Your task to perform on an android device: Go to privacy settings Image 0: 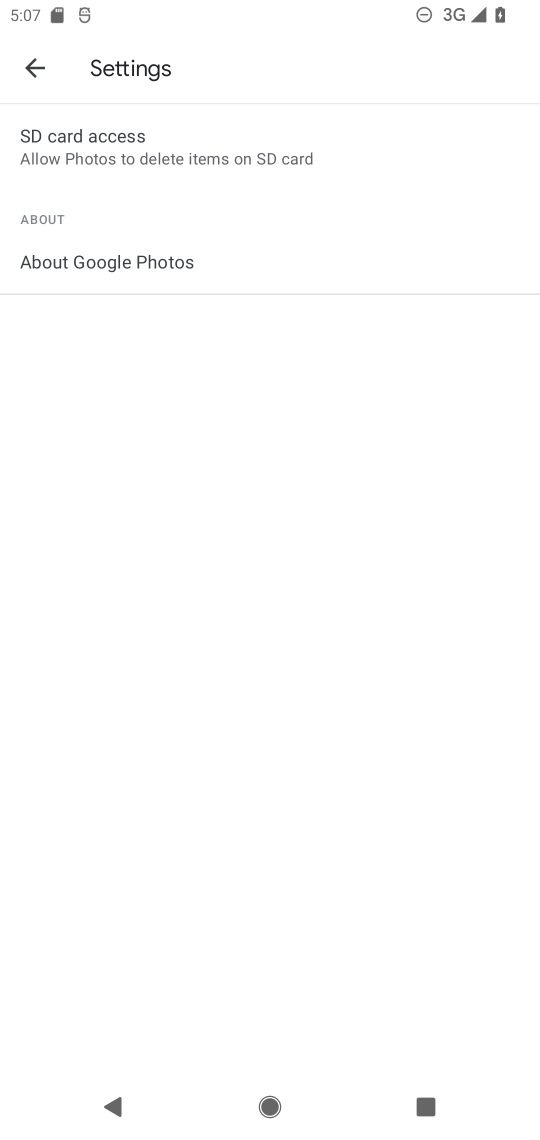
Step 0: press home button
Your task to perform on an android device: Go to privacy settings Image 1: 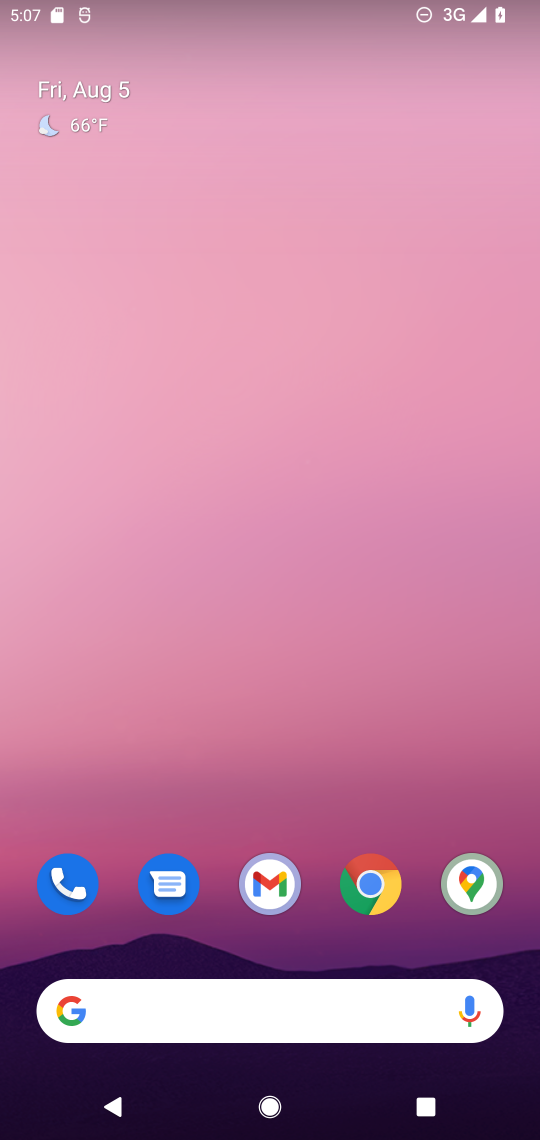
Step 1: drag from (445, 936) to (284, 105)
Your task to perform on an android device: Go to privacy settings Image 2: 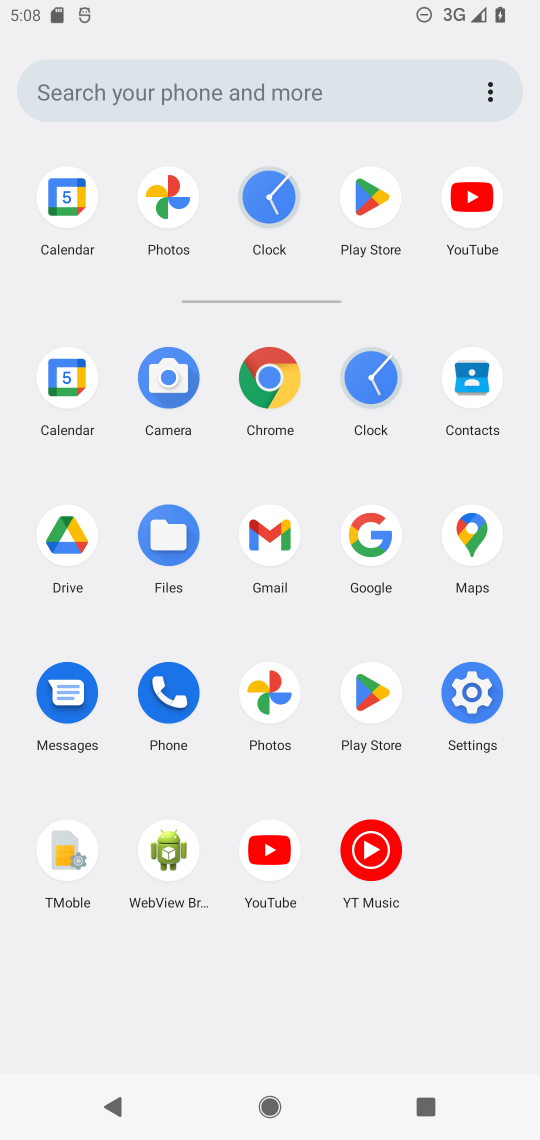
Step 2: click (458, 704)
Your task to perform on an android device: Go to privacy settings Image 3: 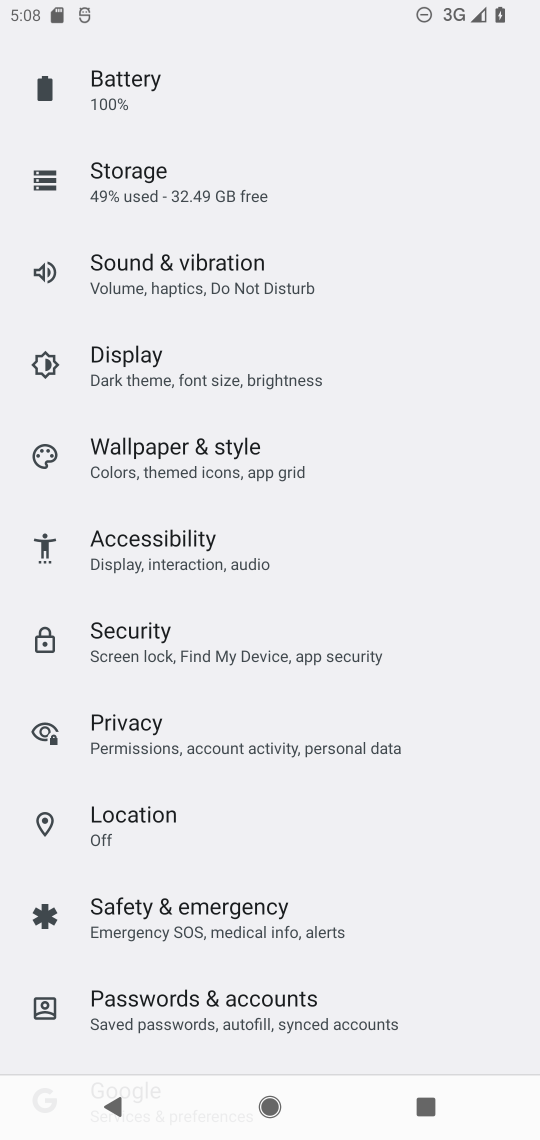
Step 3: click (168, 742)
Your task to perform on an android device: Go to privacy settings Image 4: 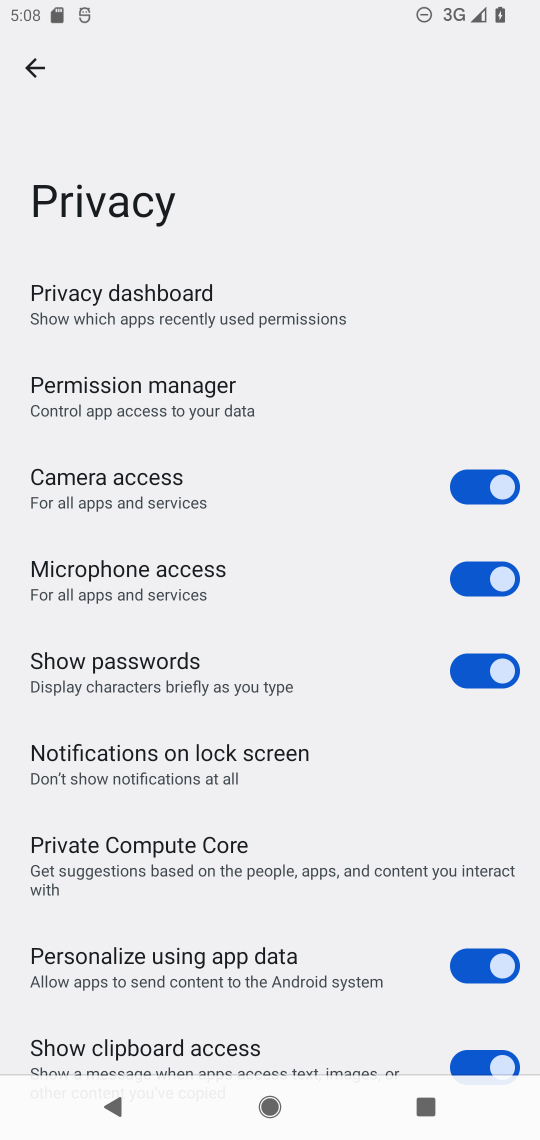
Step 4: task complete